Your task to perform on an android device: What's the weather going to be tomorrow? Image 0: 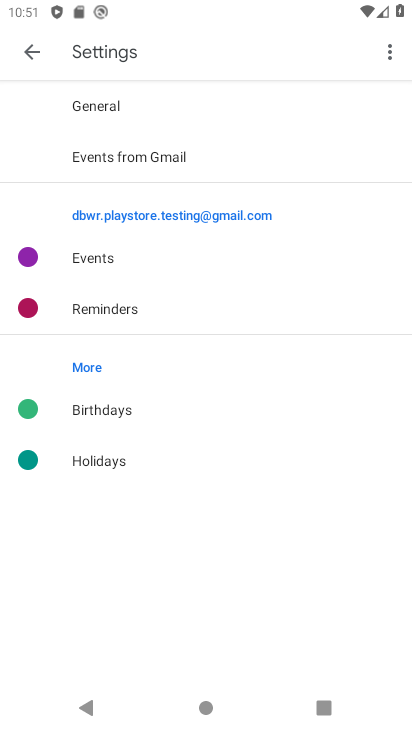
Step 0: press home button
Your task to perform on an android device: What's the weather going to be tomorrow? Image 1: 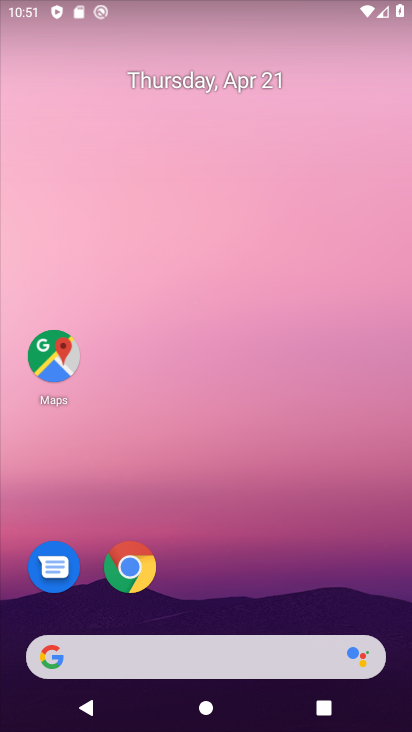
Step 1: click (111, 650)
Your task to perform on an android device: What's the weather going to be tomorrow? Image 2: 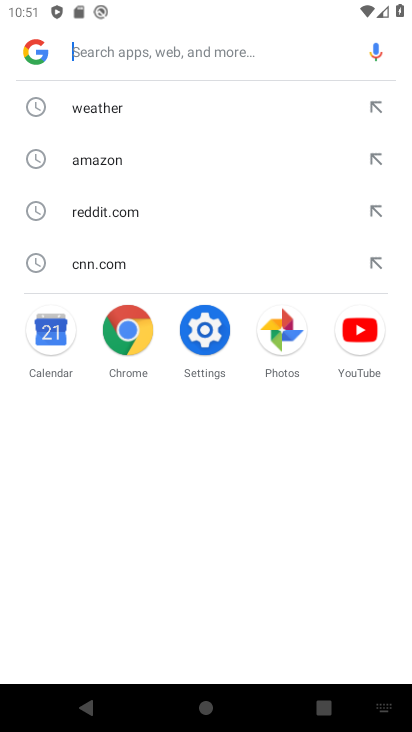
Step 2: click (124, 109)
Your task to perform on an android device: What's the weather going to be tomorrow? Image 3: 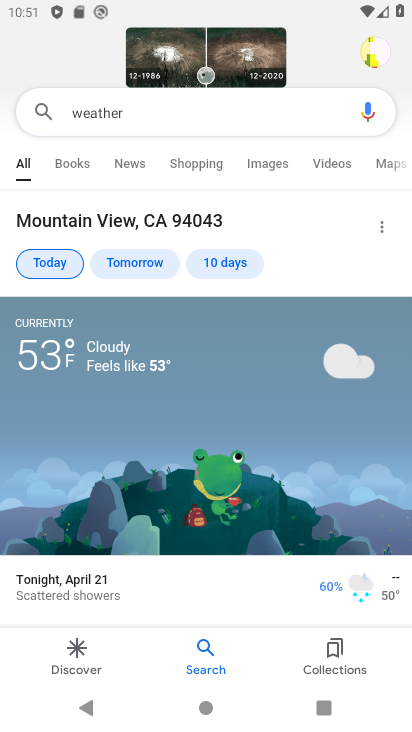
Step 3: click (135, 261)
Your task to perform on an android device: What's the weather going to be tomorrow? Image 4: 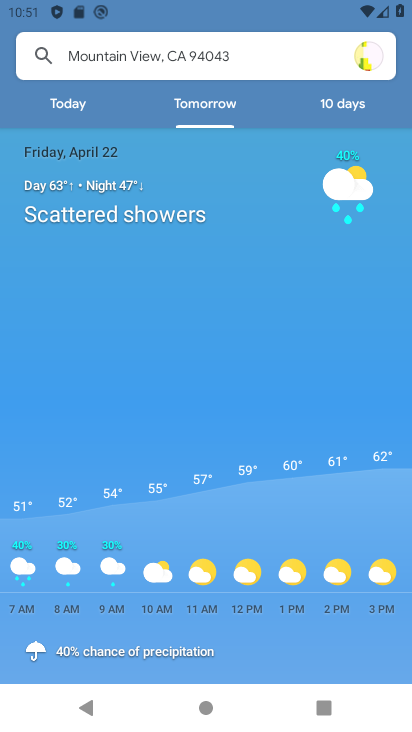
Step 4: task complete